Your task to perform on an android device: set the timer Image 0: 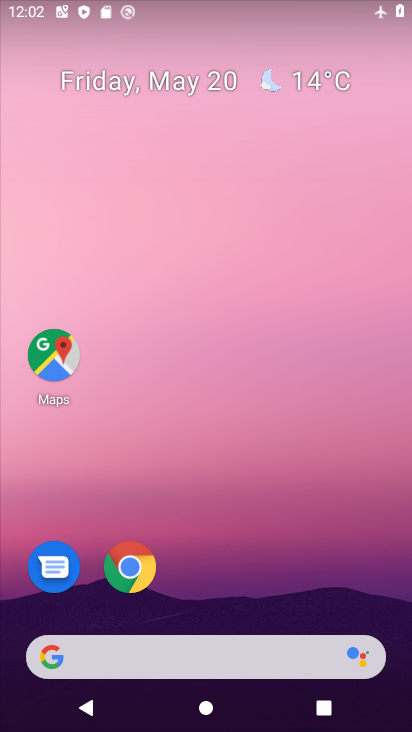
Step 0: drag from (328, 471) to (315, 101)
Your task to perform on an android device: set the timer Image 1: 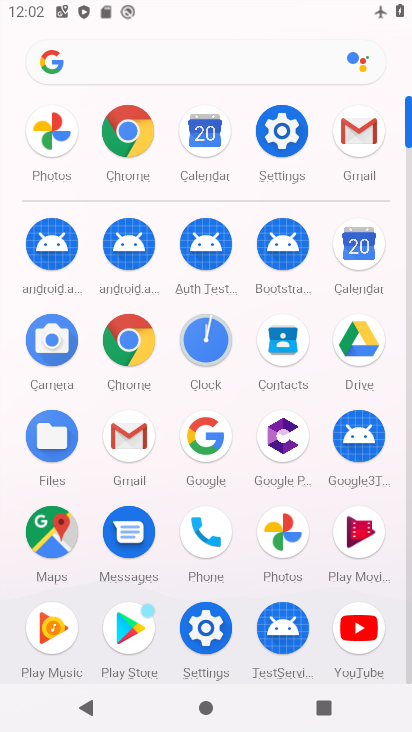
Step 1: click (214, 351)
Your task to perform on an android device: set the timer Image 2: 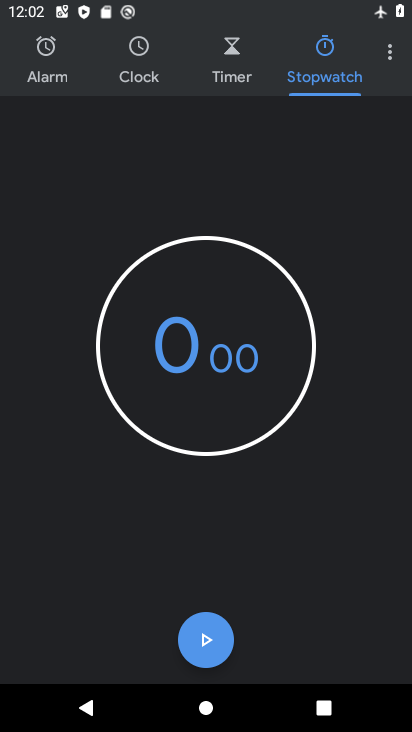
Step 2: click (220, 72)
Your task to perform on an android device: set the timer Image 3: 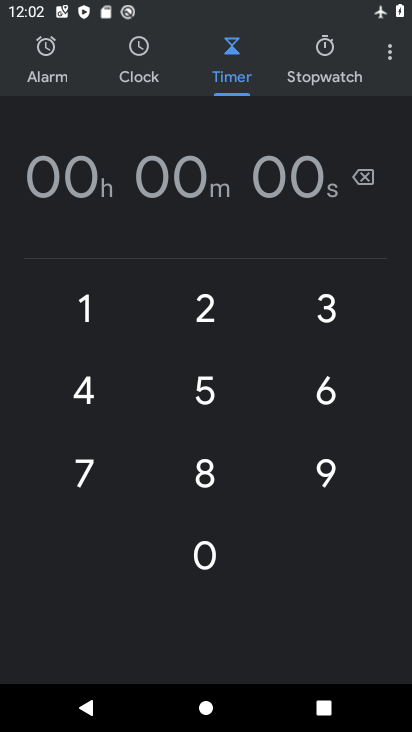
Step 3: click (83, 321)
Your task to perform on an android device: set the timer Image 4: 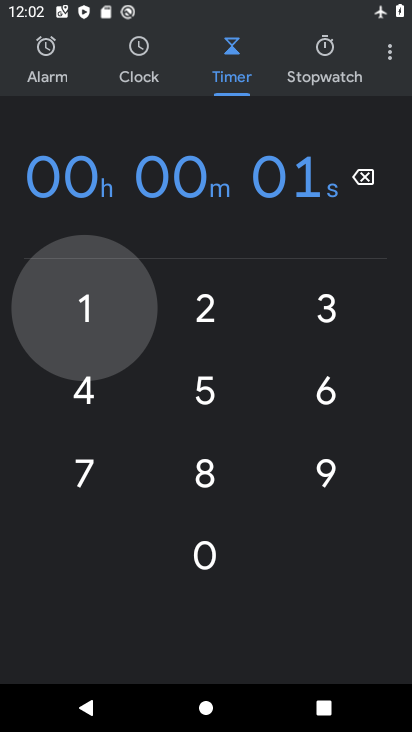
Step 4: click (229, 319)
Your task to perform on an android device: set the timer Image 5: 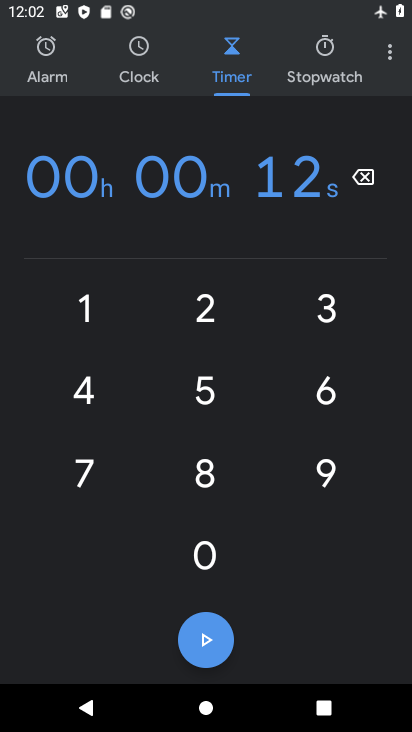
Step 5: click (82, 323)
Your task to perform on an android device: set the timer Image 6: 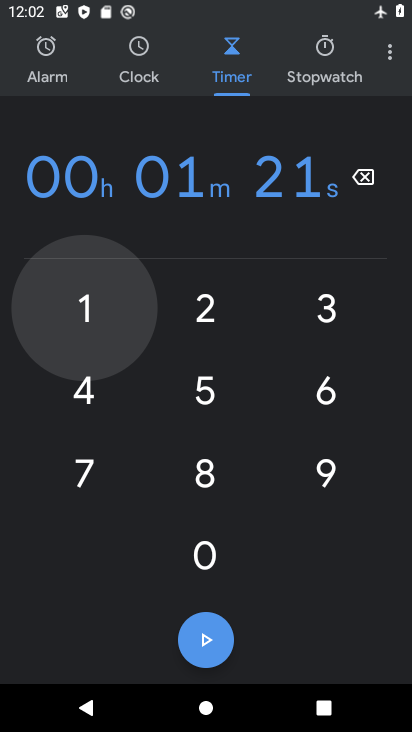
Step 6: click (203, 328)
Your task to perform on an android device: set the timer Image 7: 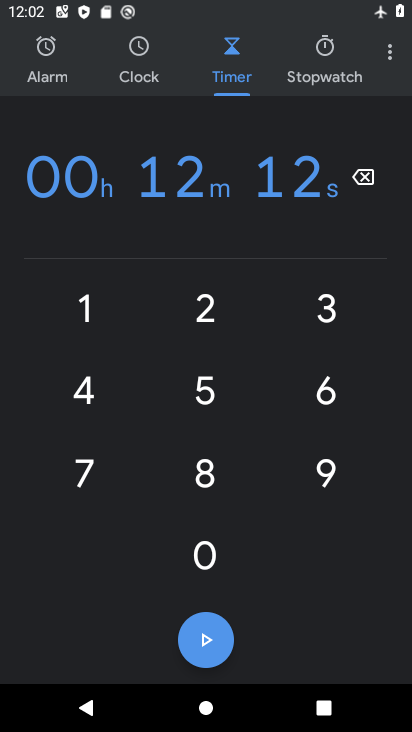
Step 7: click (95, 317)
Your task to perform on an android device: set the timer Image 8: 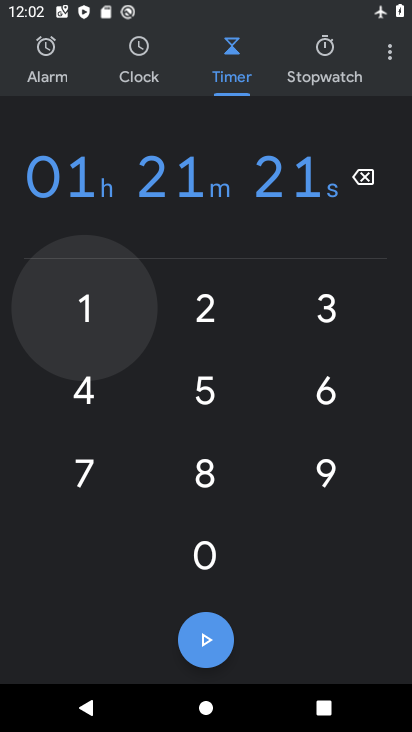
Step 8: click (228, 322)
Your task to perform on an android device: set the timer Image 9: 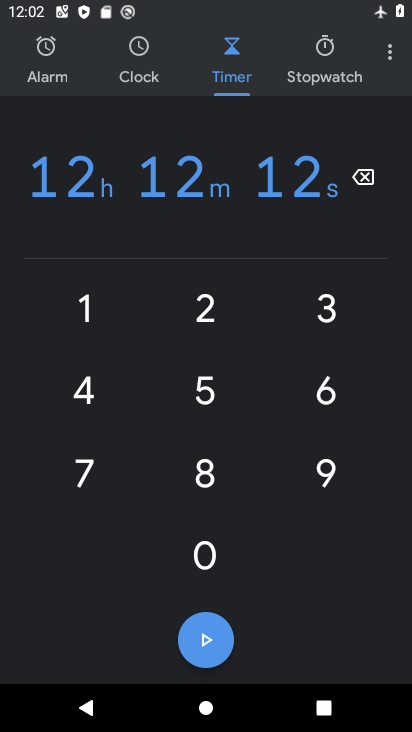
Step 9: click (207, 652)
Your task to perform on an android device: set the timer Image 10: 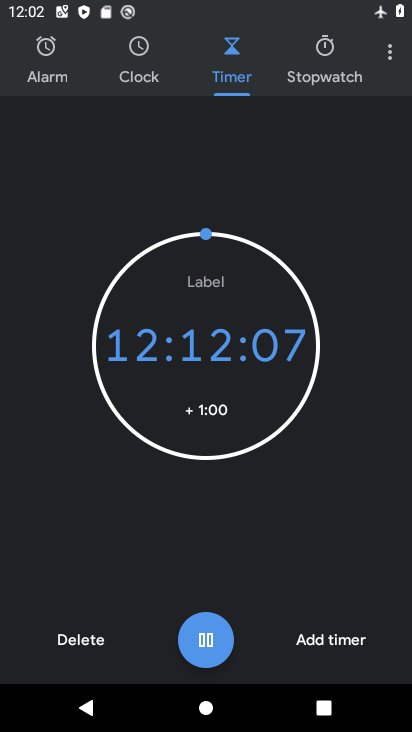
Step 10: task complete